Your task to perform on an android device: Open the phone app and click the voicemail tab. Image 0: 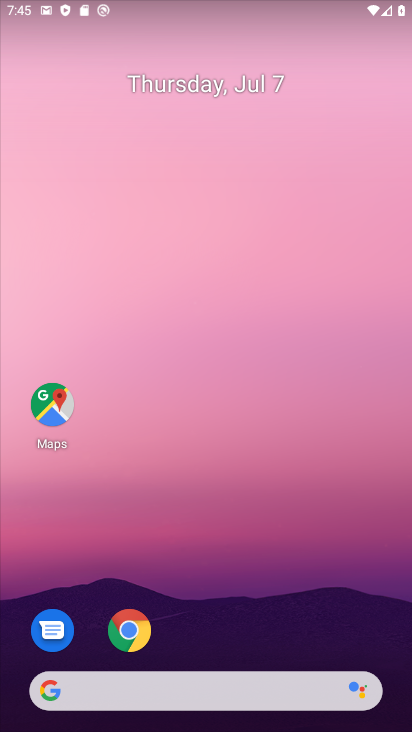
Step 0: drag from (325, 552) to (335, 115)
Your task to perform on an android device: Open the phone app and click the voicemail tab. Image 1: 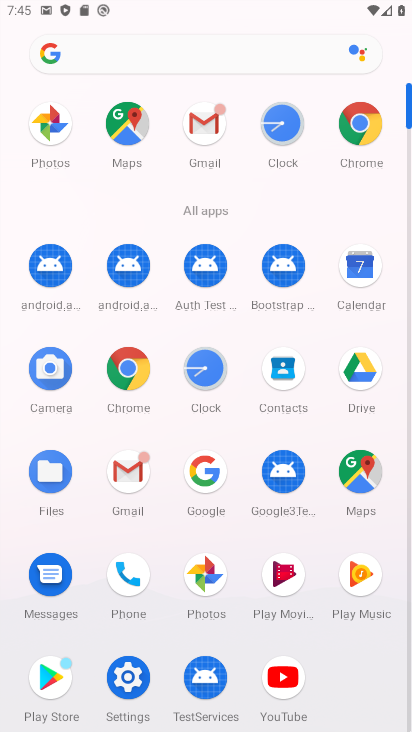
Step 1: click (120, 570)
Your task to perform on an android device: Open the phone app and click the voicemail tab. Image 2: 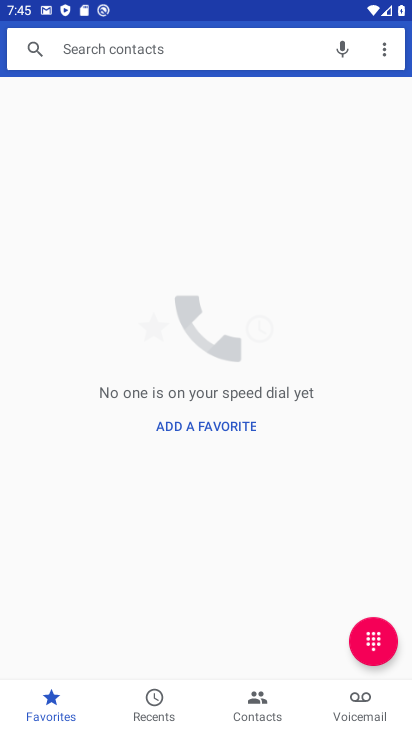
Step 2: click (365, 702)
Your task to perform on an android device: Open the phone app and click the voicemail tab. Image 3: 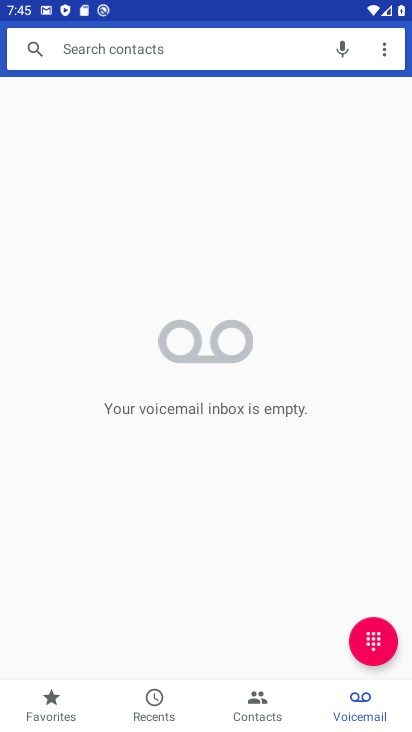
Step 3: task complete